Your task to perform on an android device: set default search engine in the chrome app Image 0: 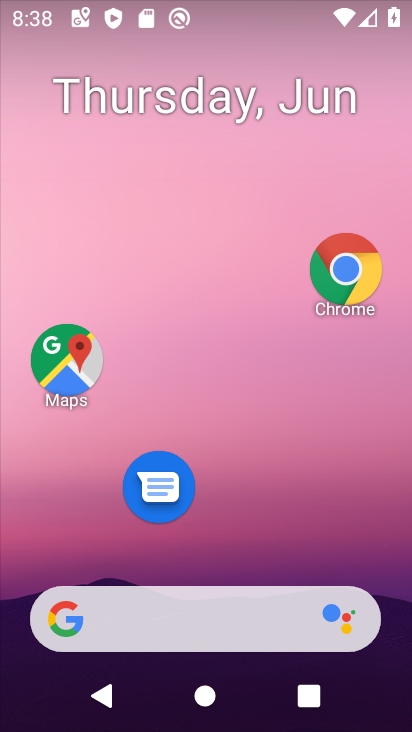
Step 0: drag from (209, 524) to (215, 131)
Your task to perform on an android device: set default search engine in the chrome app Image 1: 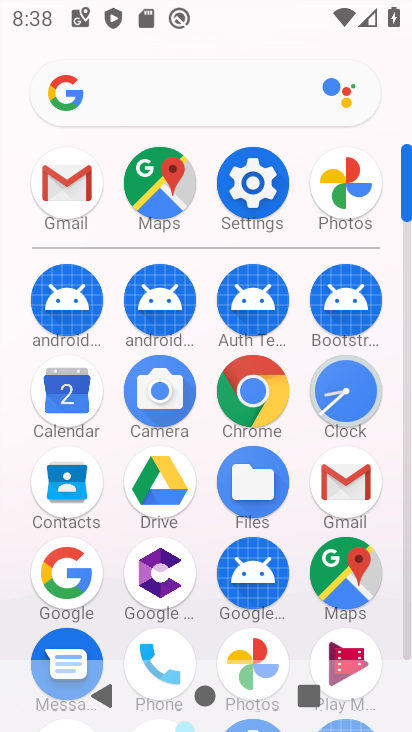
Step 1: click (252, 378)
Your task to perform on an android device: set default search engine in the chrome app Image 2: 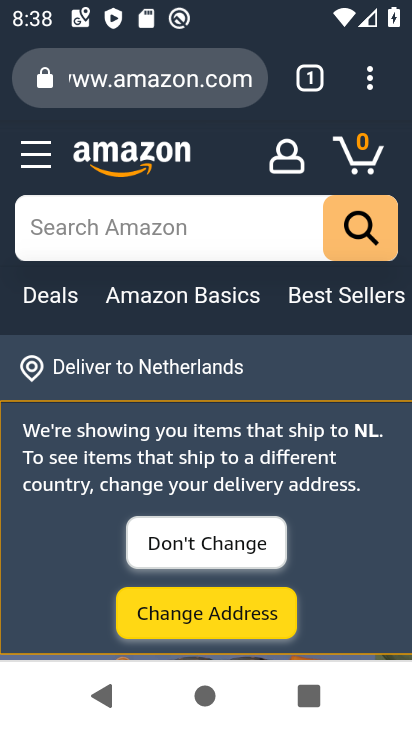
Step 2: drag from (371, 69) to (157, 556)
Your task to perform on an android device: set default search engine in the chrome app Image 3: 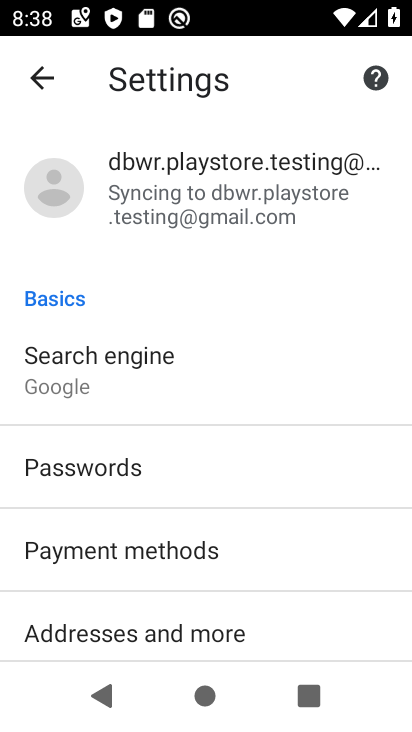
Step 3: click (95, 397)
Your task to perform on an android device: set default search engine in the chrome app Image 4: 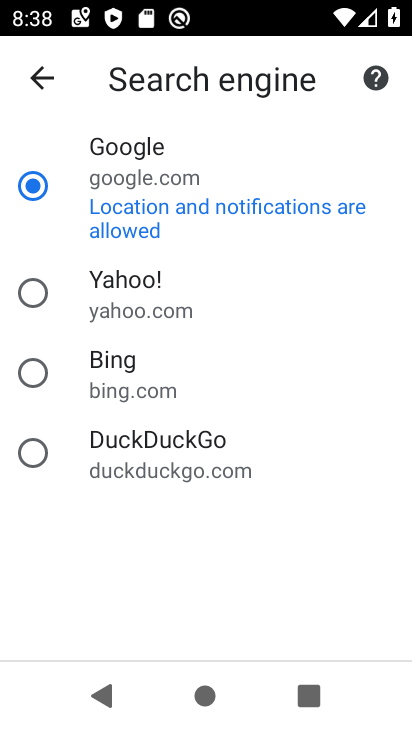
Step 4: task complete